Your task to perform on an android device: Search for Italian restaurants on Maps Image 0: 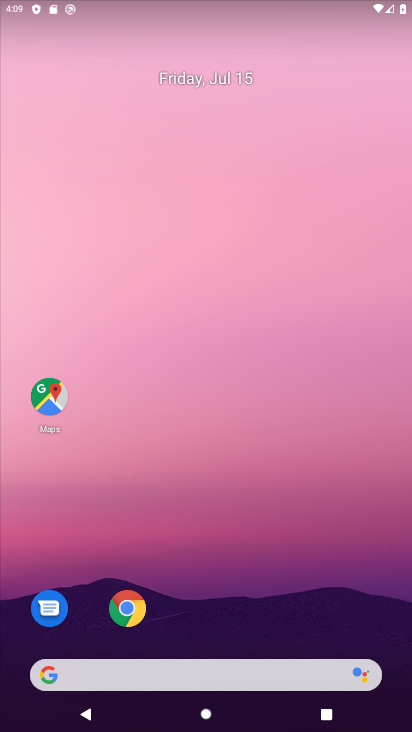
Step 0: click (260, 81)
Your task to perform on an android device: Search for Italian restaurants on Maps Image 1: 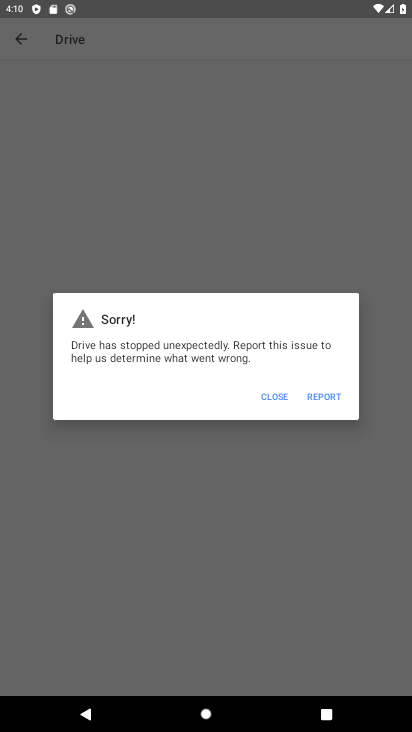
Step 1: press home button
Your task to perform on an android device: Search for Italian restaurants on Maps Image 2: 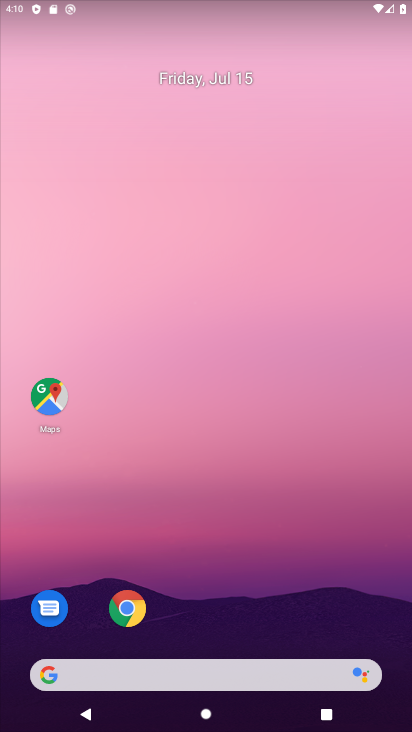
Step 2: click (47, 389)
Your task to perform on an android device: Search for Italian restaurants on Maps Image 3: 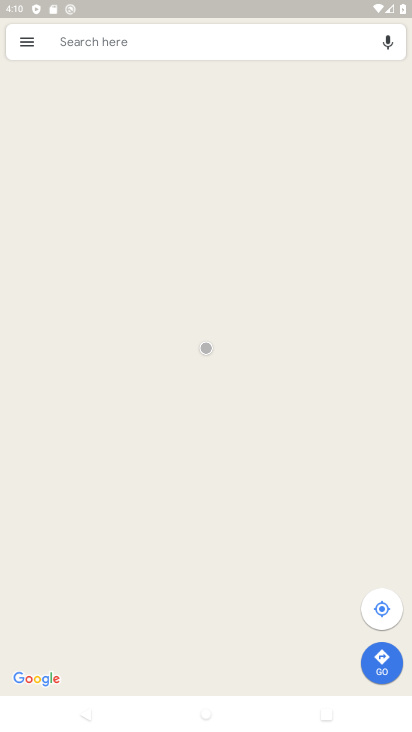
Step 3: click (187, 37)
Your task to perform on an android device: Search for Italian restaurants on Maps Image 4: 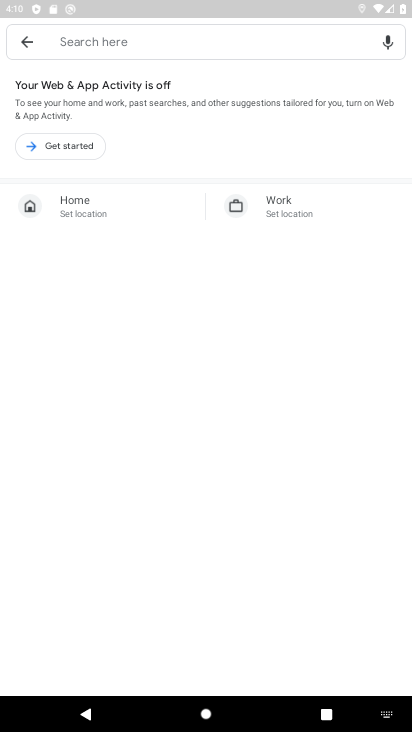
Step 4: type "italian restaurants"
Your task to perform on an android device: Search for Italian restaurants on Maps Image 5: 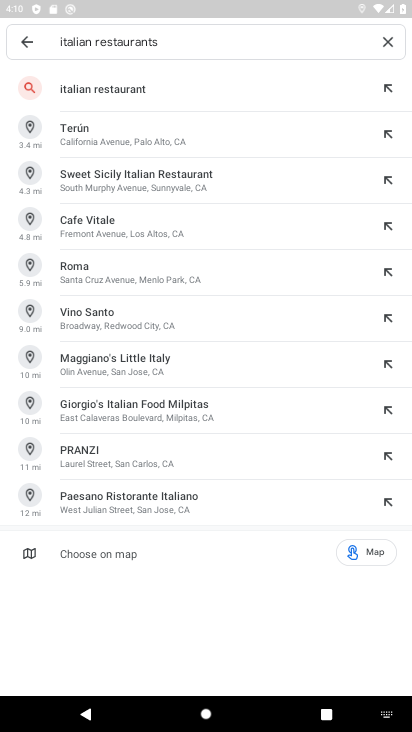
Step 5: click (160, 85)
Your task to perform on an android device: Search for Italian restaurants on Maps Image 6: 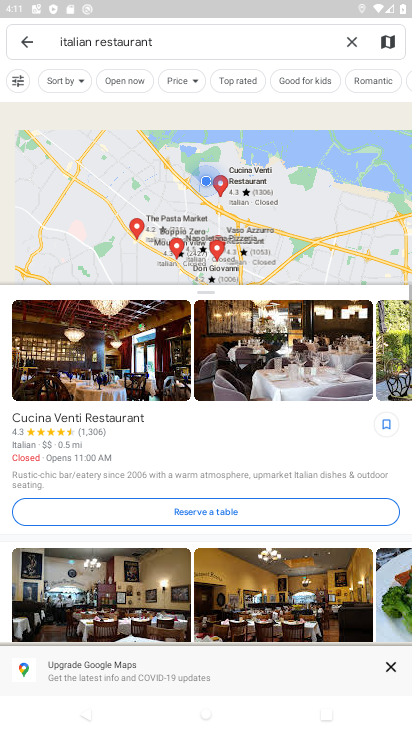
Step 6: task complete